Your task to perform on an android device: change the clock display to show seconds Image 0: 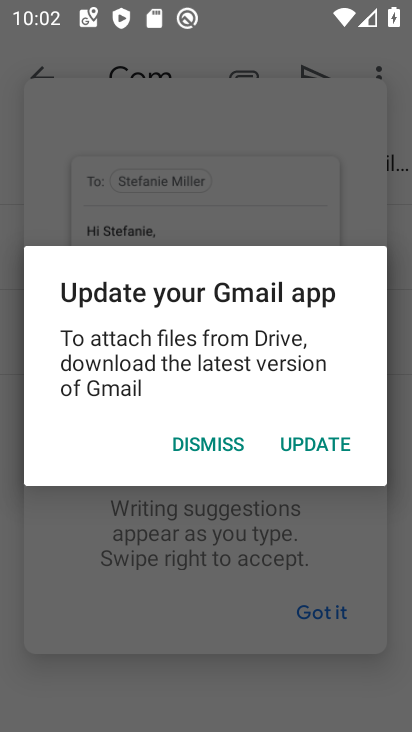
Step 0: press home button
Your task to perform on an android device: change the clock display to show seconds Image 1: 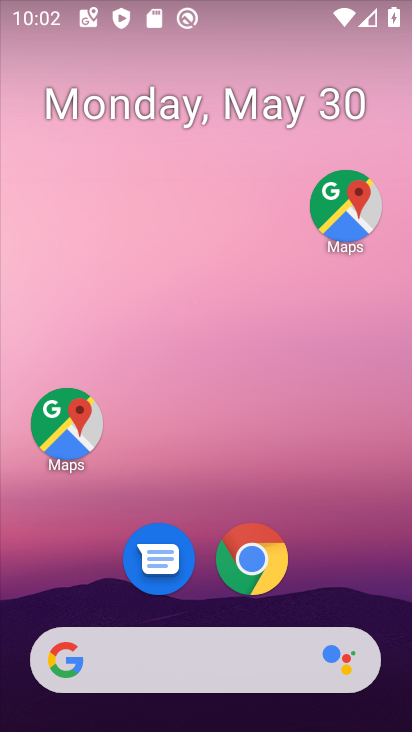
Step 1: drag from (333, 541) to (278, 83)
Your task to perform on an android device: change the clock display to show seconds Image 2: 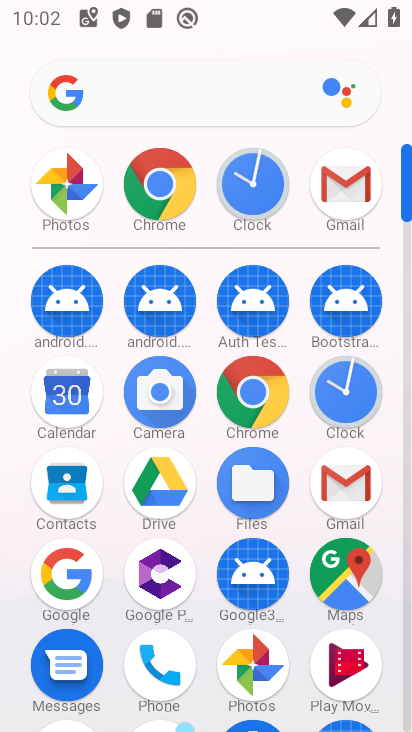
Step 2: click (342, 403)
Your task to perform on an android device: change the clock display to show seconds Image 3: 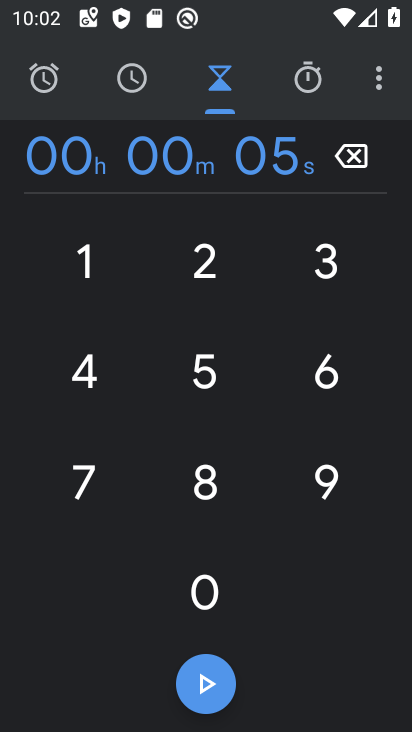
Step 3: click (385, 82)
Your task to perform on an android device: change the clock display to show seconds Image 4: 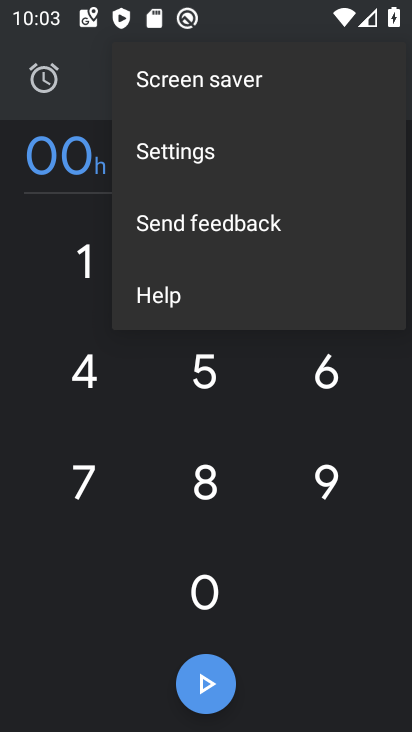
Step 4: click (190, 161)
Your task to perform on an android device: change the clock display to show seconds Image 5: 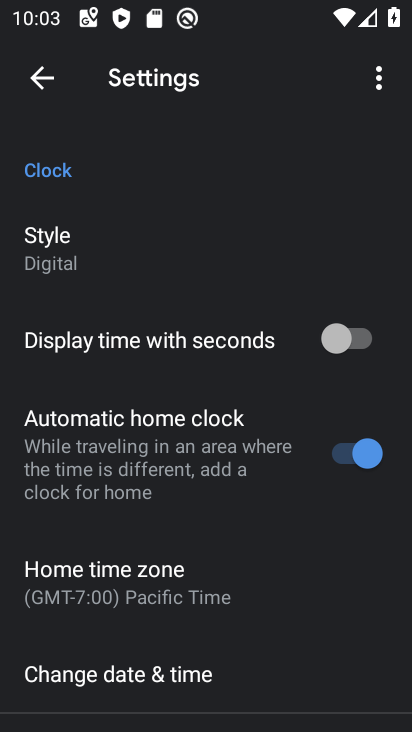
Step 5: click (335, 344)
Your task to perform on an android device: change the clock display to show seconds Image 6: 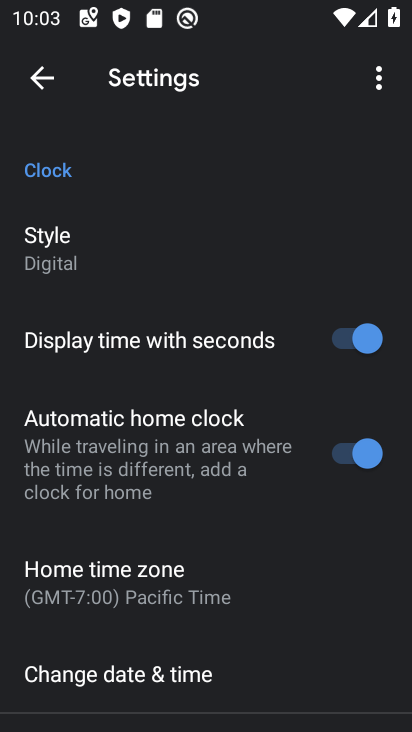
Step 6: task complete